Your task to perform on an android device: delete browsing data in the chrome app Image 0: 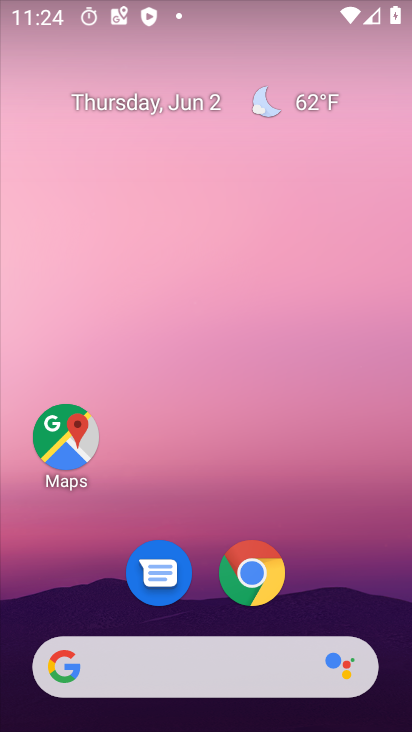
Step 0: drag from (309, 666) to (399, 32)
Your task to perform on an android device: delete browsing data in the chrome app Image 1: 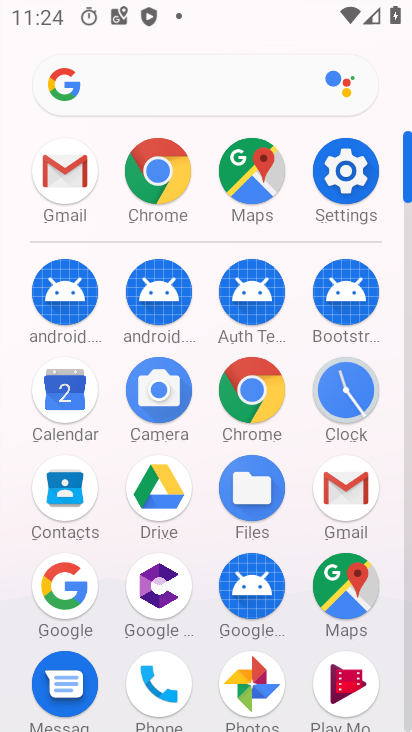
Step 1: click (239, 388)
Your task to perform on an android device: delete browsing data in the chrome app Image 2: 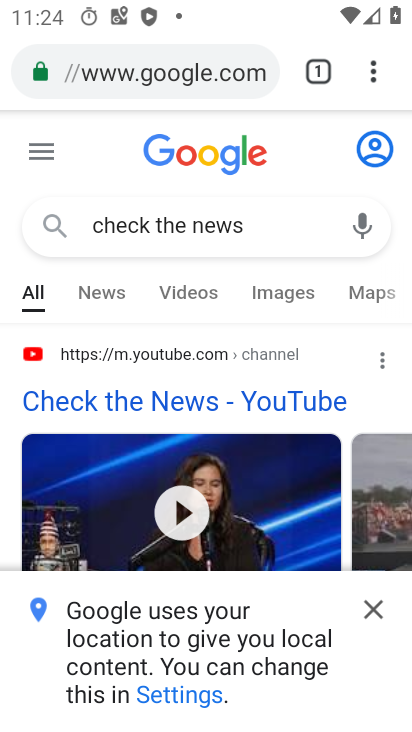
Step 2: drag from (381, 79) to (160, 409)
Your task to perform on an android device: delete browsing data in the chrome app Image 3: 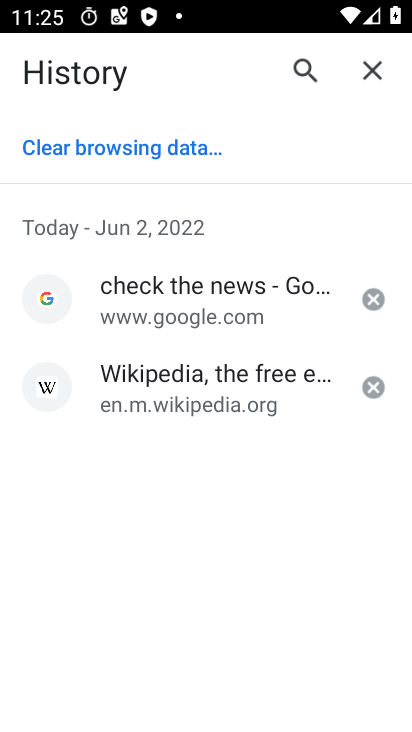
Step 3: click (188, 146)
Your task to perform on an android device: delete browsing data in the chrome app Image 4: 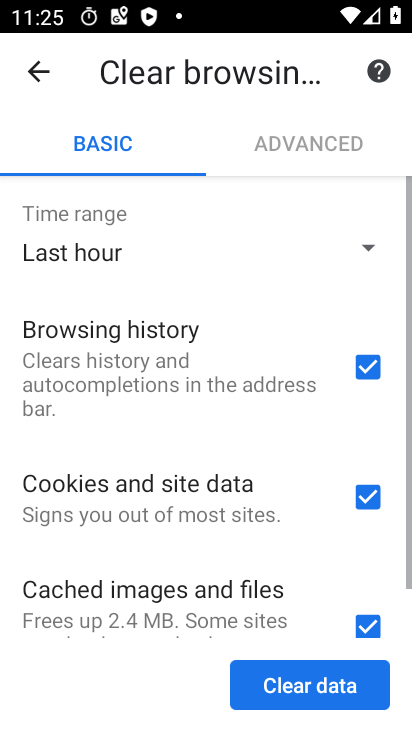
Step 4: click (297, 713)
Your task to perform on an android device: delete browsing data in the chrome app Image 5: 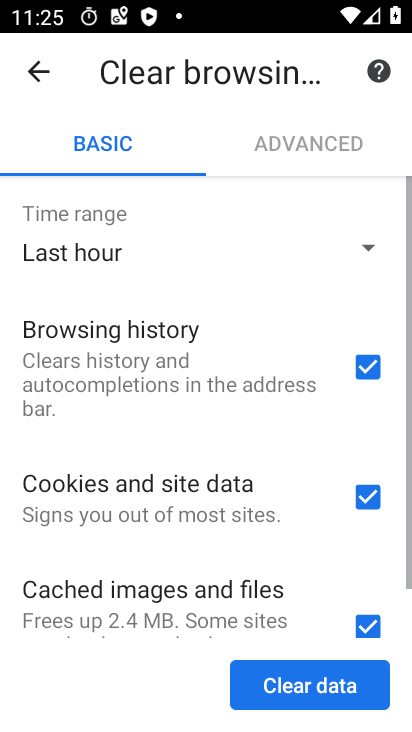
Step 5: click (295, 697)
Your task to perform on an android device: delete browsing data in the chrome app Image 6: 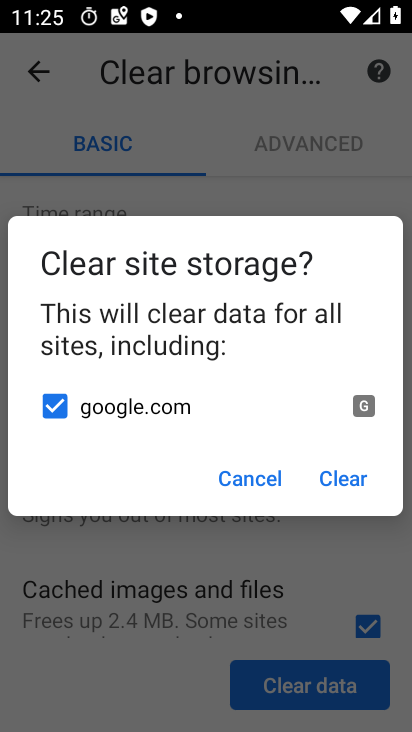
Step 6: click (332, 472)
Your task to perform on an android device: delete browsing data in the chrome app Image 7: 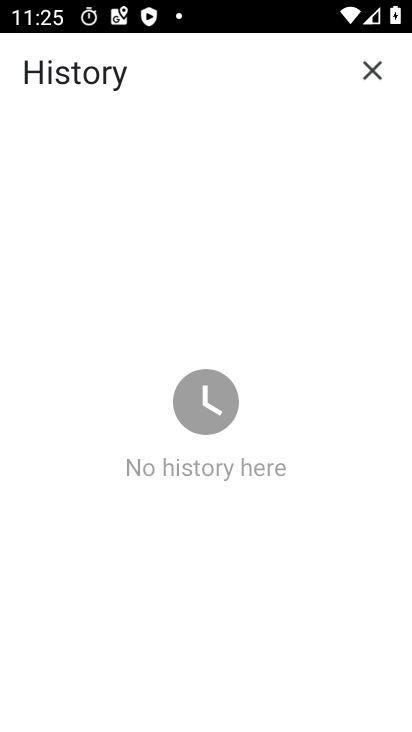
Step 7: task complete